Your task to perform on an android device: Open Google Chrome and open the bookmarks view Image 0: 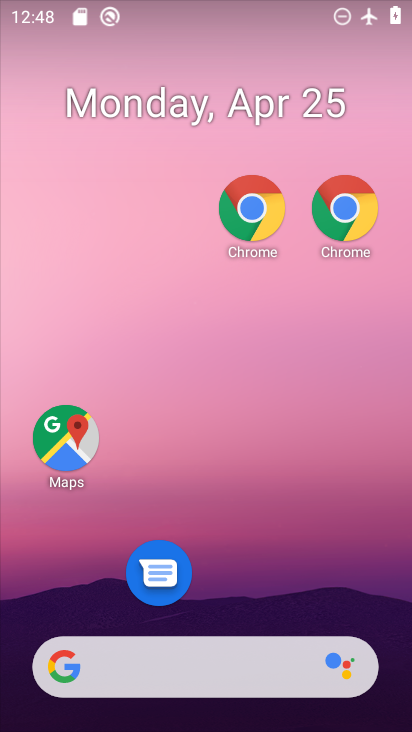
Step 0: drag from (264, 710) to (180, 159)
Your task to perform on an android device: Open Google Chrome and open the bookmarks view Image 1: 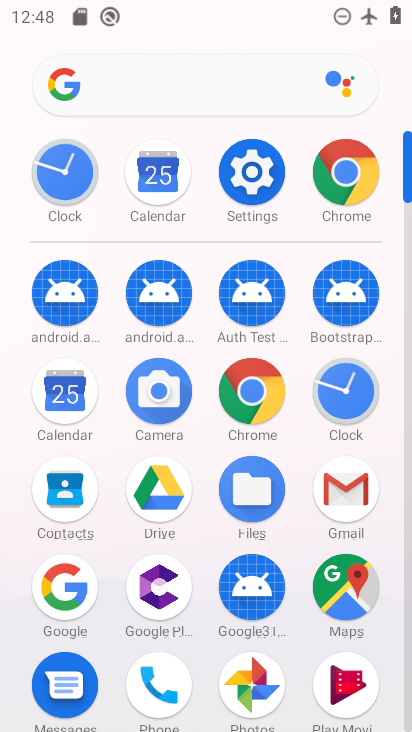
Step 1: click (341, 176)
Your task to perform on an android device: Open Google Chrome and open the bookmarks view Image 2: 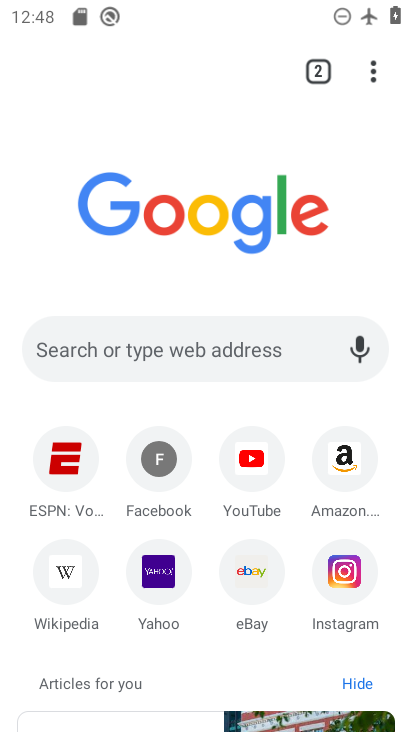
Step 2: drag from (371, 72) to (129, 282)
Your task to perform on an android device: Open Google Chrome and open the bookmarks view Image 3: 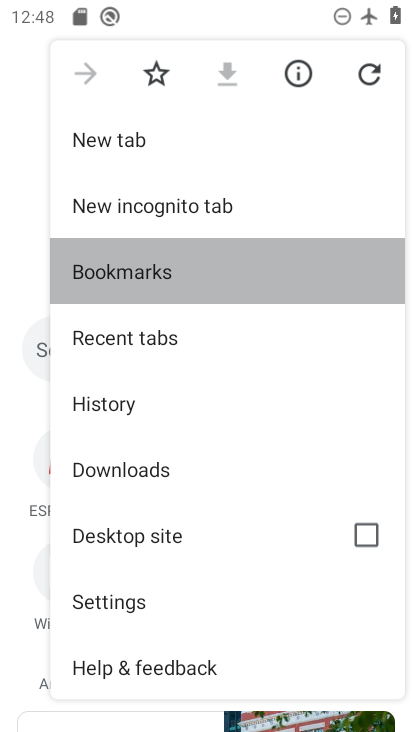
Step 3: click (124, 274)
Your task to perform on an android device: Open Google Chrome and open the bookmarks view Image 4: 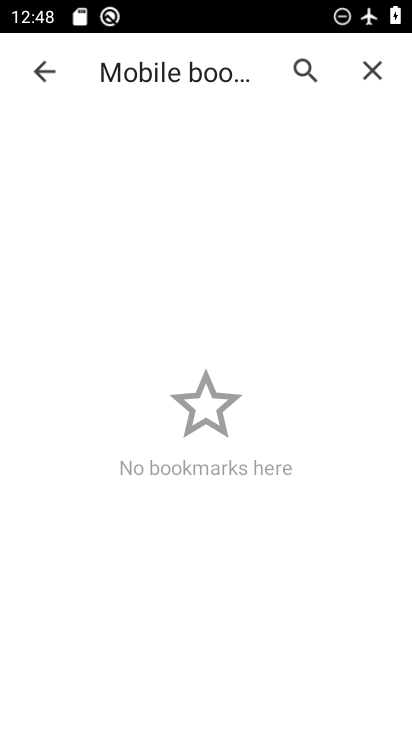
Step 4: task complete